Your task to perform on an android device: check battery use Image 0: 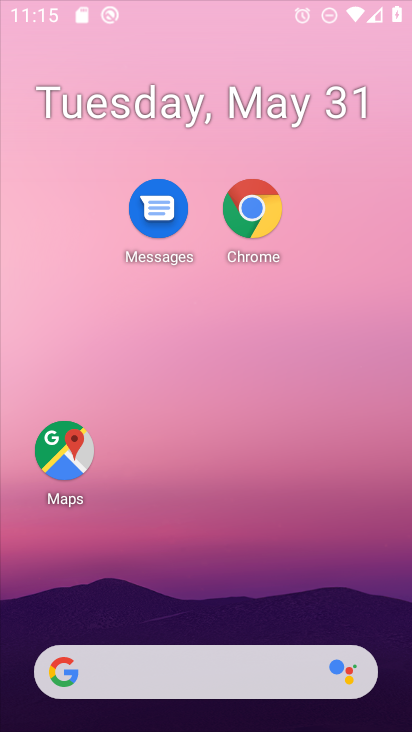
Step 0: press home button
Your task to perform on an android device: check battery use Image 1: 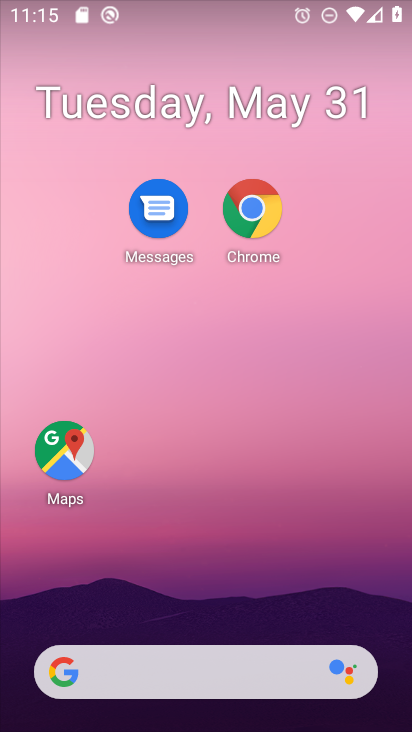
Step 1: drag from (219, 620) to (260, 33)
Your task to perform on an android device: check battery use Image 2: 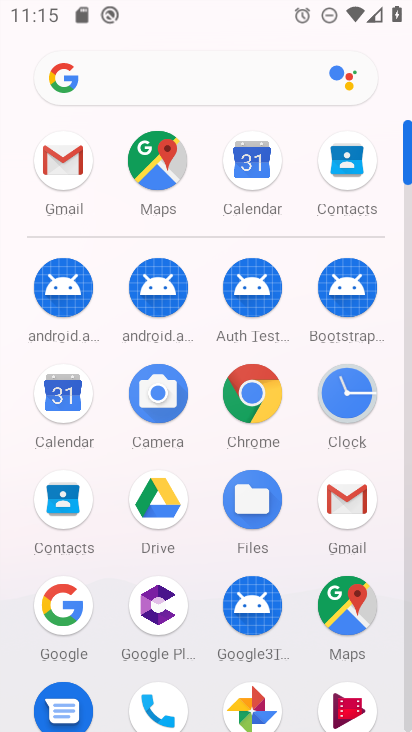
Step 2: drag from (214, 687) to (227, 197)
Your task to perform on an android device: check battery use Image 3: 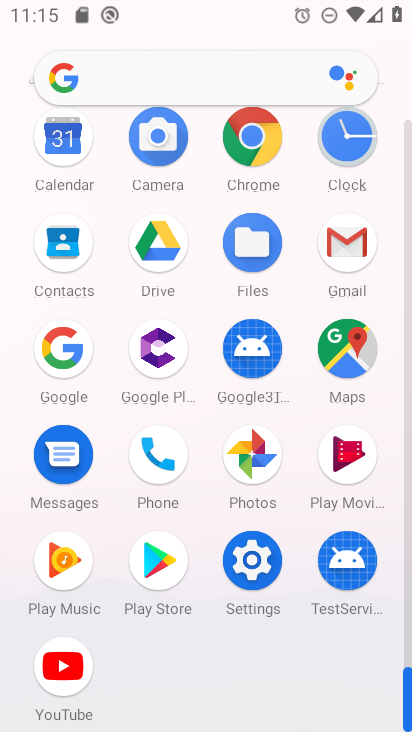
Step 3: click (249, 552)
Your task to perform on an android device: check battery use Image 4: 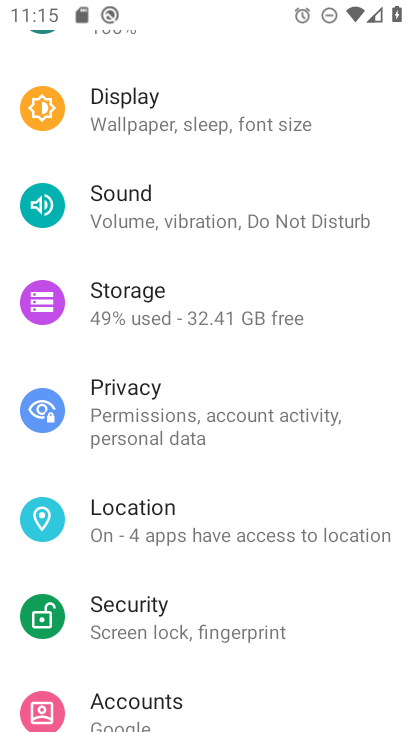
Step 4: drag from (180, 115) to (194, 706)
Your task to perform on an android device: check battery use Image 5: 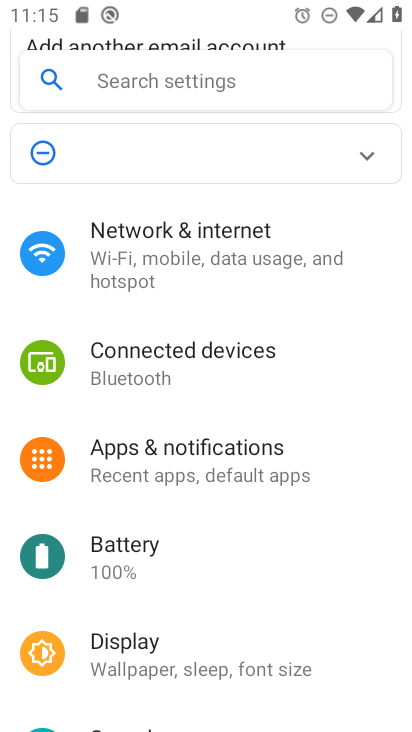
Step 5: click (176, 559)
Your task to perform on an android device: check battery use Image 6: 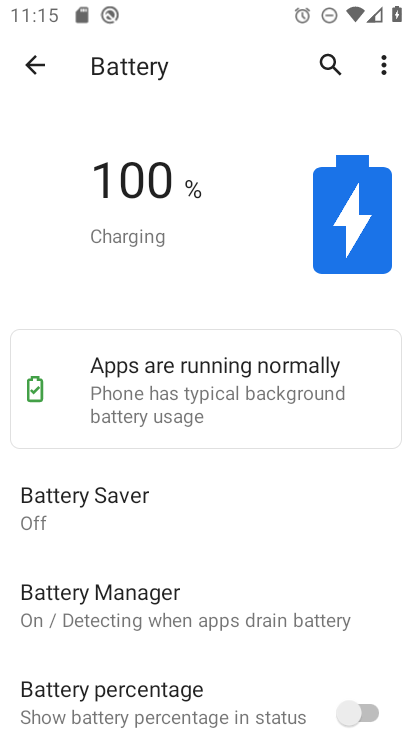
Step 6: click (389, 57)
Your task to perform on an android device: check battery use Image 7: 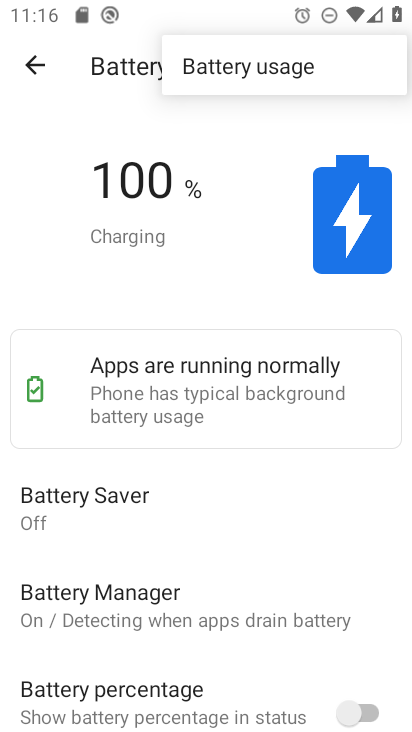
Step 7: click (276, 69)
Your task to perform on an android device: check battery use Image 8: 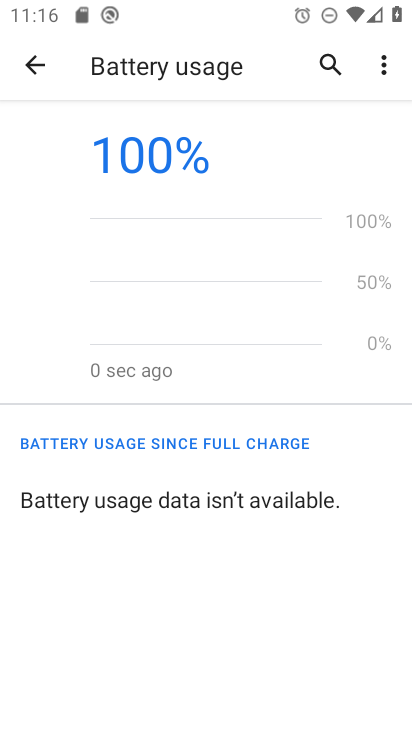
Step 8: task complete